Your task to perform on an android device: Set an alarm for 8am Image 0: 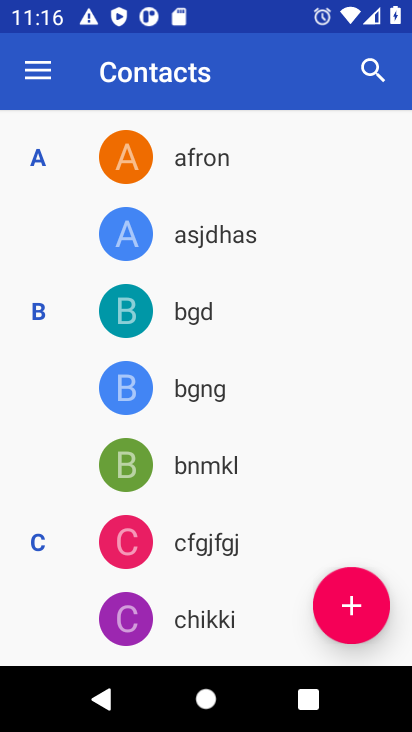
Step 0: press home button
Your task to perform on an android device: Set an alarm for 8am Image 1: 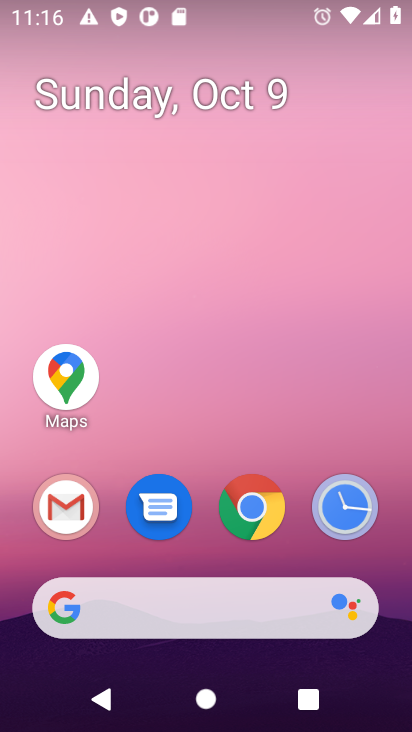
Step 1: drag from (364, 447) to (367, 49)
Your task to perform on an android device: Set an alarm for 8am Image 2: 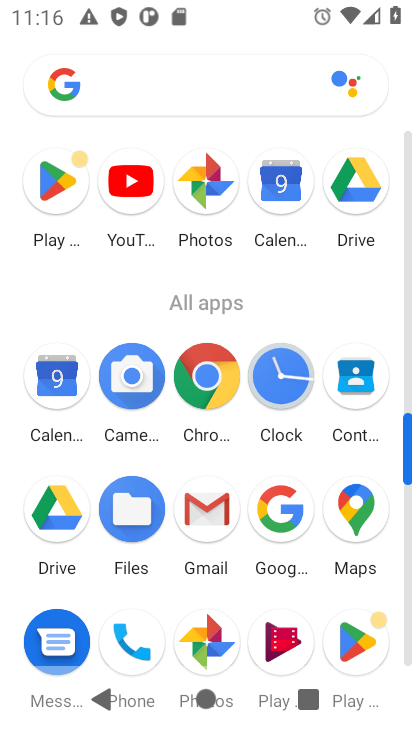
Step 2: click (291, 387)
Your task to perform on an android device: Set an alarm for 8am Image 3: 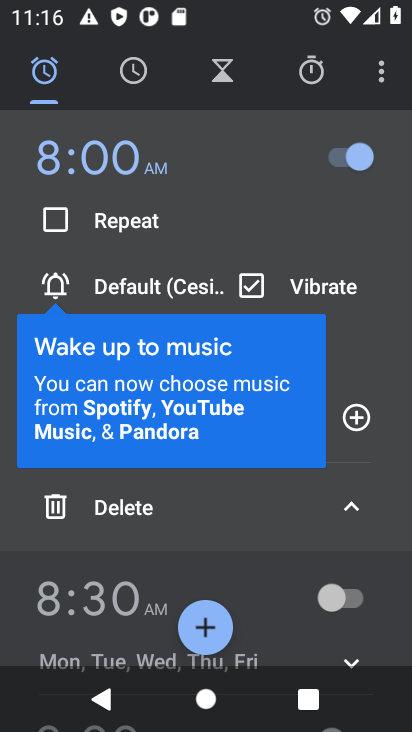
Step 3: click (215, 629)
Your task to perform on an android device: Set an alarm for 8am Image 4: 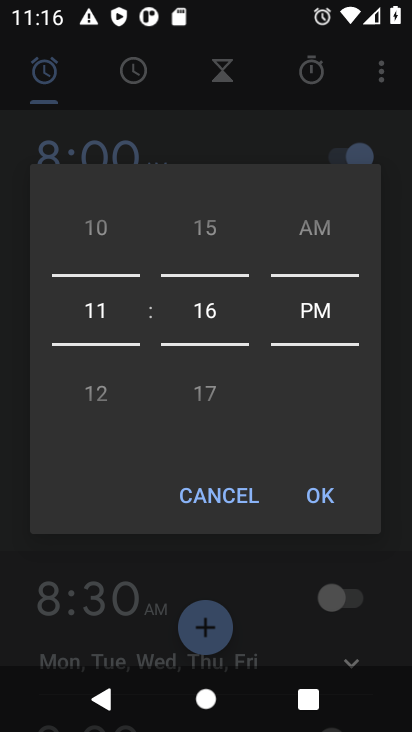
Step 4: drag from (309, 279) to (310, 445)
Your task to perform on an android device: Set an alarm for 8am Image 5: 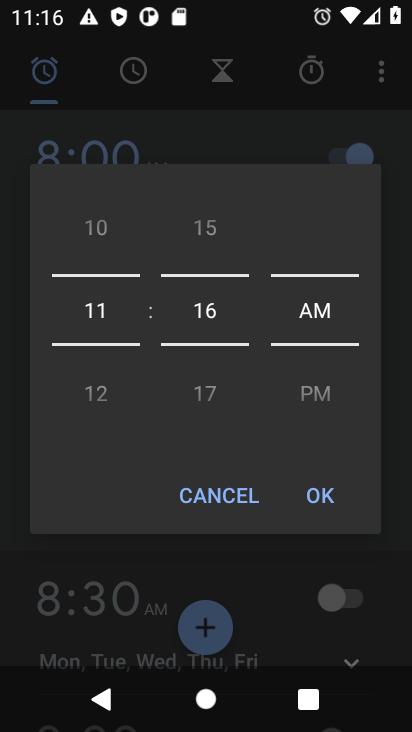
Step 5: drag from (224, 294) to (225, 443)
Your task to perform on an android device: Set an alarm for 8am Image 6: 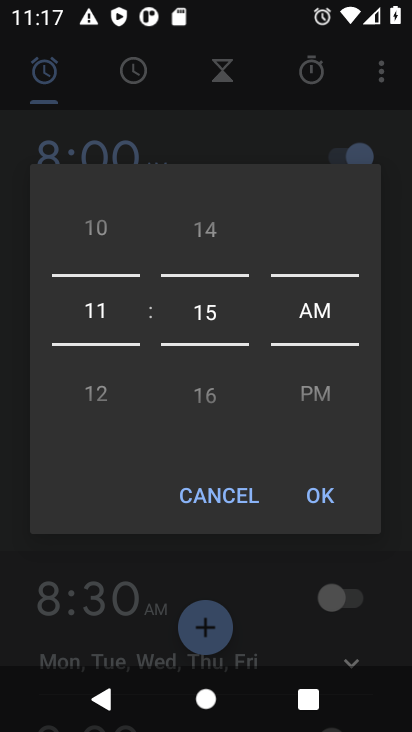
Step 6: drag from (225, 297) to (223, 445)
Your task to perform on an android device: Set an alarm for 8am Image 7: 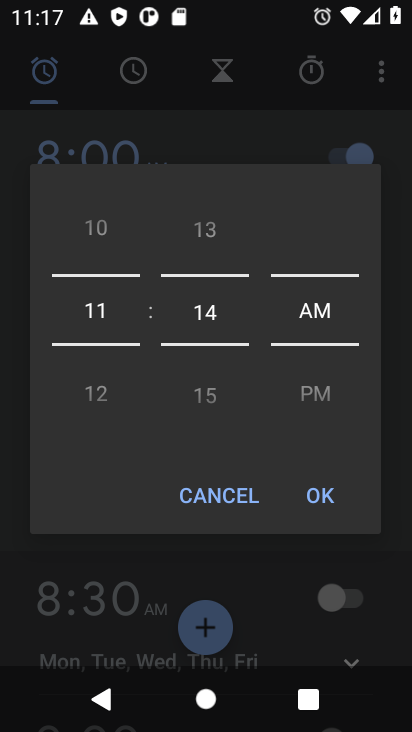
Step 7: drag from (224, 292) to (225, 443)
Your task to perform on an android device: Set an alarm for 8am Image 8: 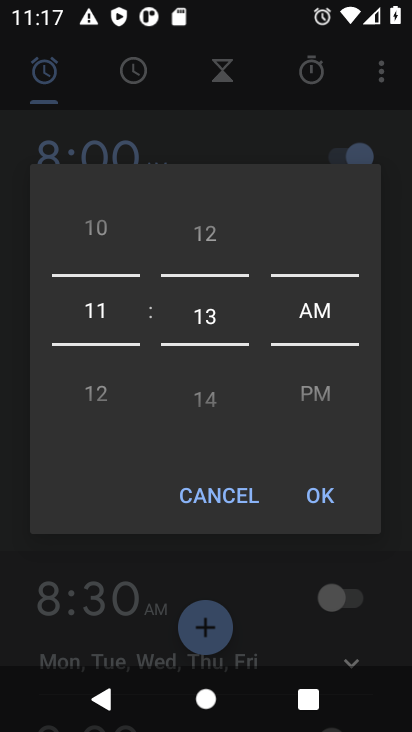
Step 8: click (214, 356)
Your task to perform on an android device: Set an alarm for 8am Image 9: 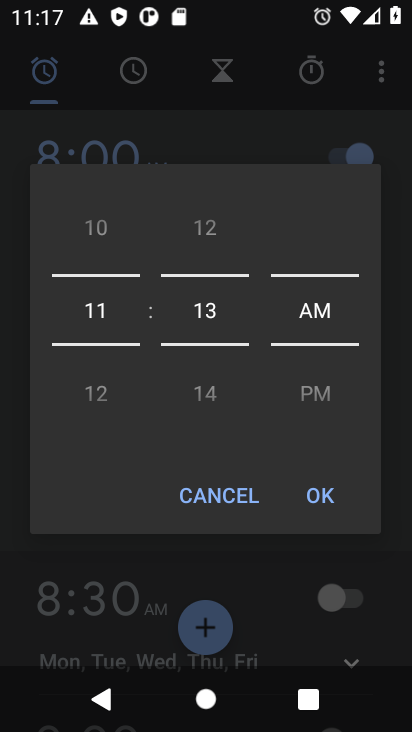
Step 9: drag from (220, 299) to (226, 411)
Your task to perform on an android device: Set an alarm for 8am Image 10: 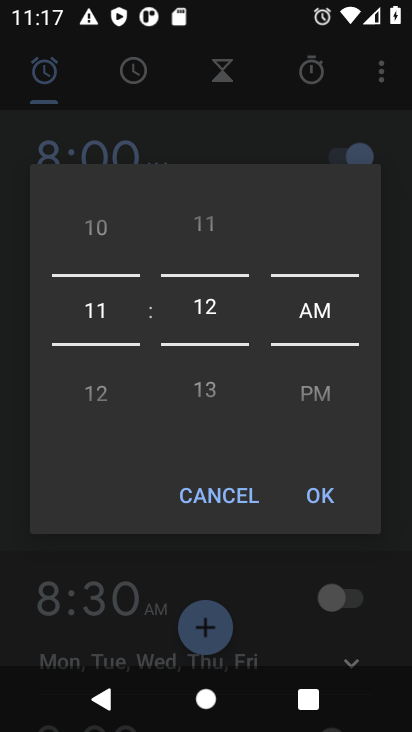
Step 10: drag from (223, 259) to (220, 466)
Your task to perform on an android device: Set an alarm for 8am Image 11: 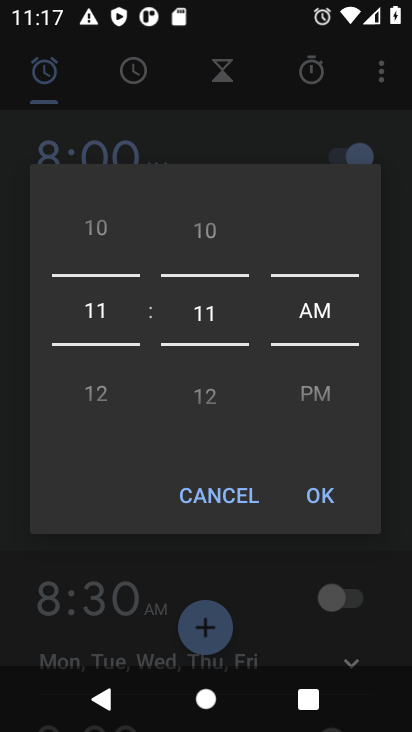
Step 11: drag from (210, 256) to (210, 426)
Your task to perform on an android device: Set an alarm for 8am Image 12: 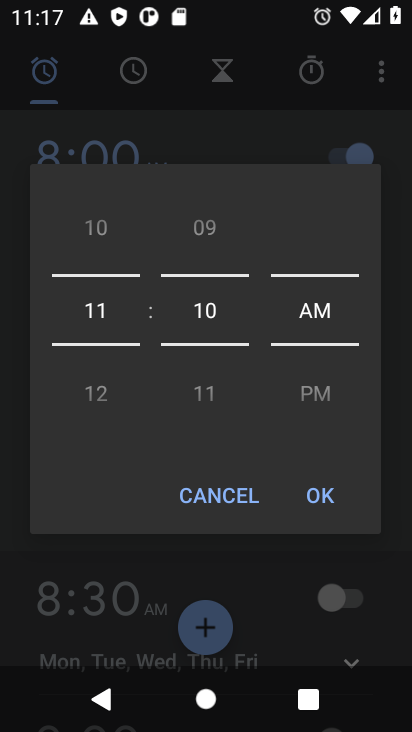
Step 12: drag from (206, 215) to (205, 443)
Your task to perform on an android device: Set an alarm for 8am Image 13: 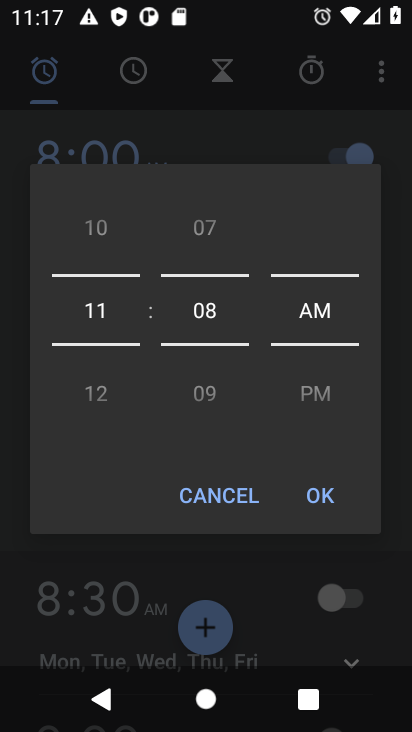
Step 13: drag from (192, 210) to (200, 414)
Your task to perform on an android device: Set an alarm for 8am Image 14: 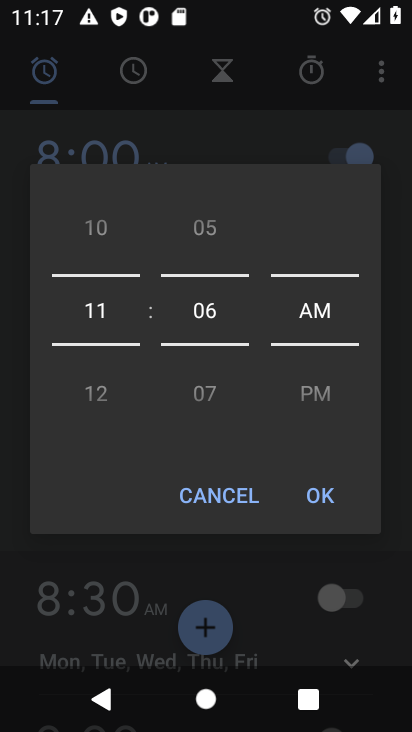
Step 14: drag from (207, 254) to (207, 408)
Your task to perform on an android device: Set an alarm for 8am Image 15: 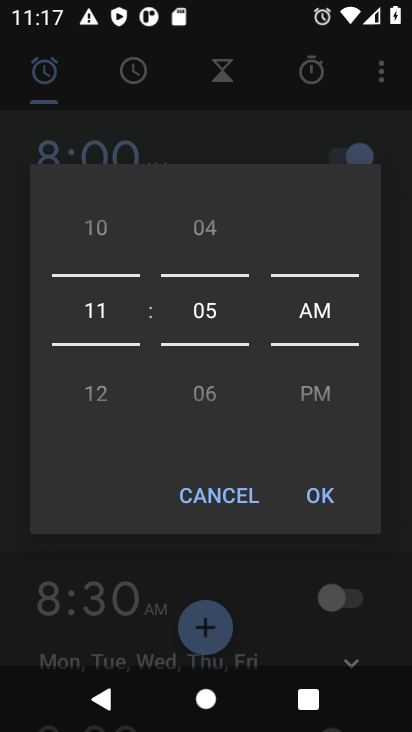
Step 15: drag from (204, 208) to (204, 367)
Your task to perform on an android device: Set an alarm for 8am Image 16: 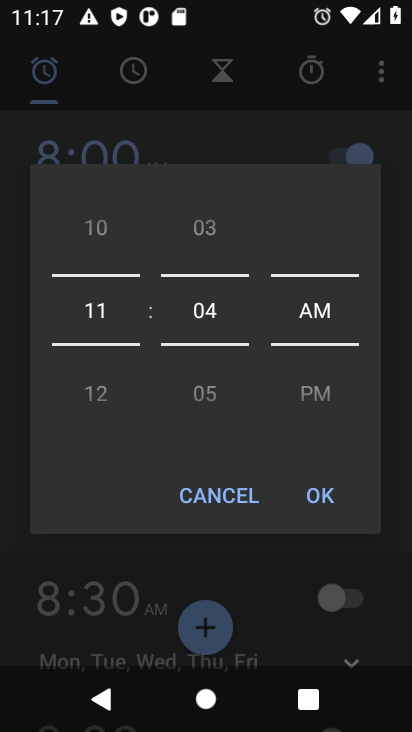
Step 16: drag from (199, 207) to (203, 375)
Your task to perform on an android device: Set an alarm for 8am Image 17: 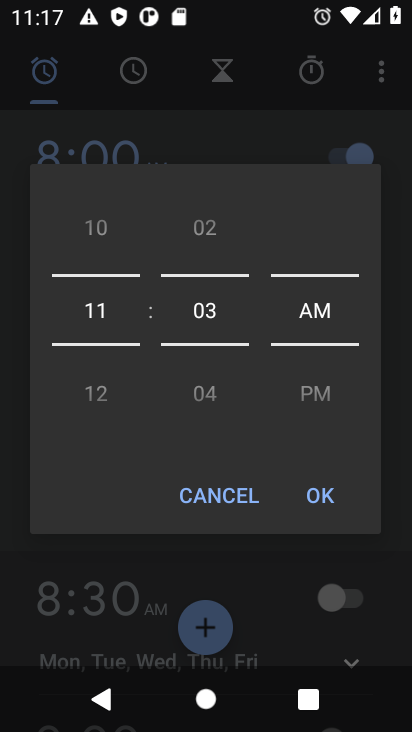
Step 17: drag from (206, 228) to (216, 393)
Your task to perform on an android device: Set an alarm for 8am Image 18: 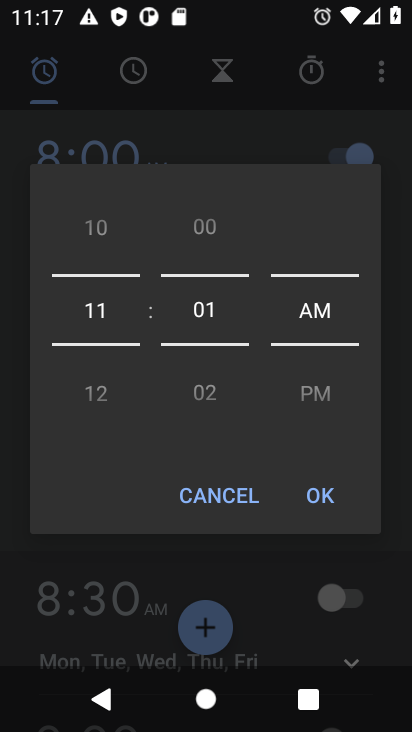
Step 18: drag from (218, 192) to (219, 356)
Your task to perform on an android device: Set an alarm for 8am Image 19: 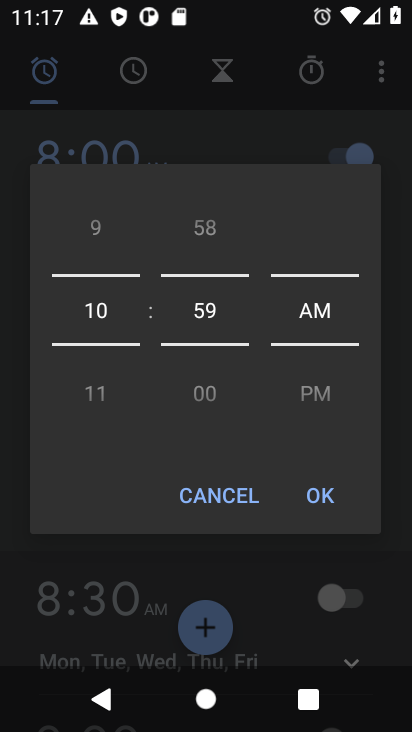
Step 19: drag from (218, 351) to (214, 250)
Your task to perform on an android device: Set an alarm for 8am Image 20: 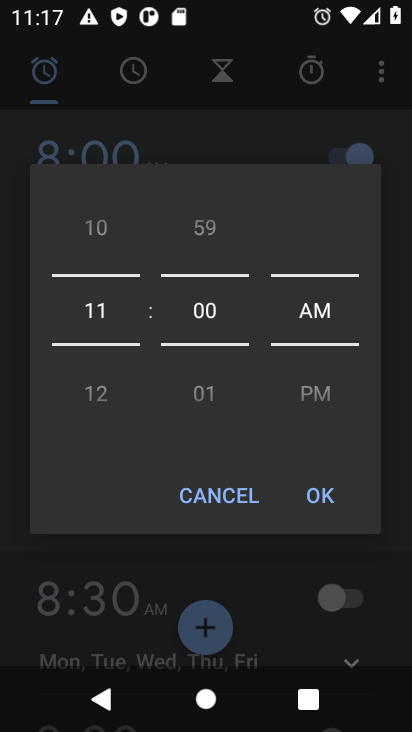
Step 20: drag from (96, 214) to (98, 360)
Your task to perform on an android device: Set an alarm for 8am Image 21: 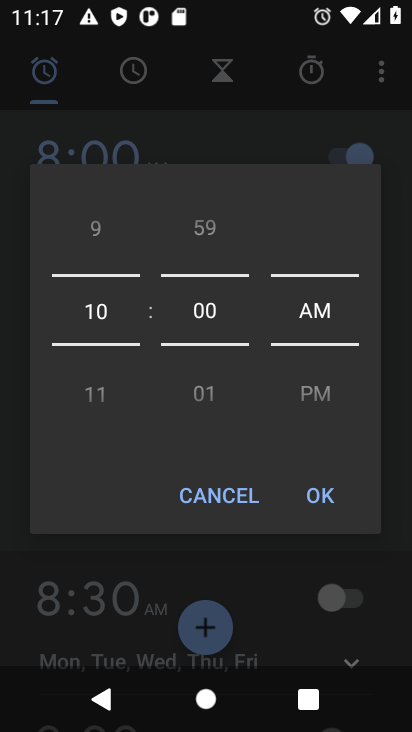
Step 21: drag from (106, 205) to (102, 382)
Your task to perform on an android device: Set an alarm for 8am Image 22: 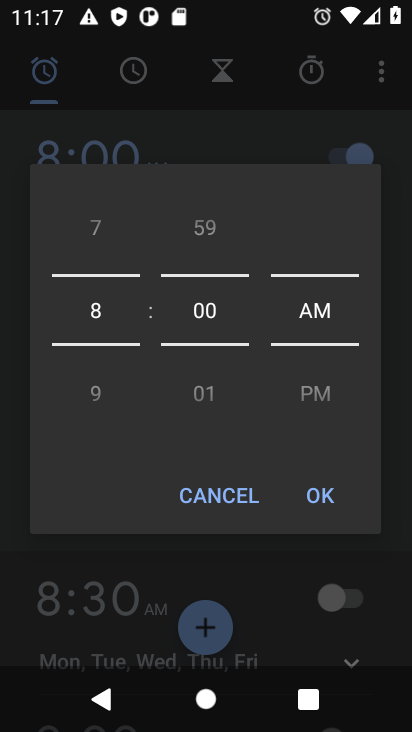
Step 22: click (318, 501)
Your task to perform on an android device: Set an alarm for 8am Image 23: 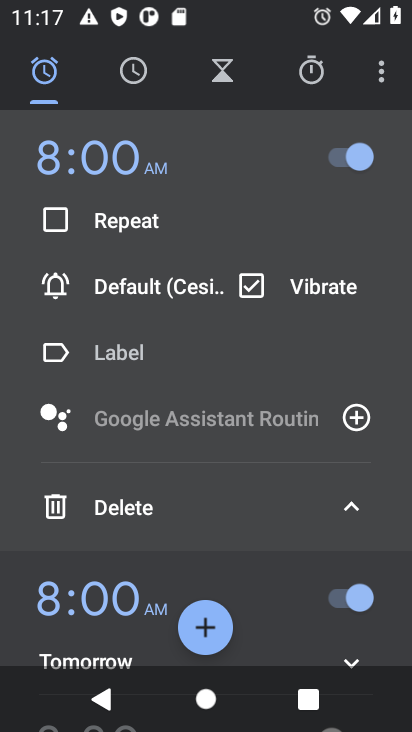
Step 23: task complete